Your task to perform on an android device: turn off picture-in-picture Image 0: 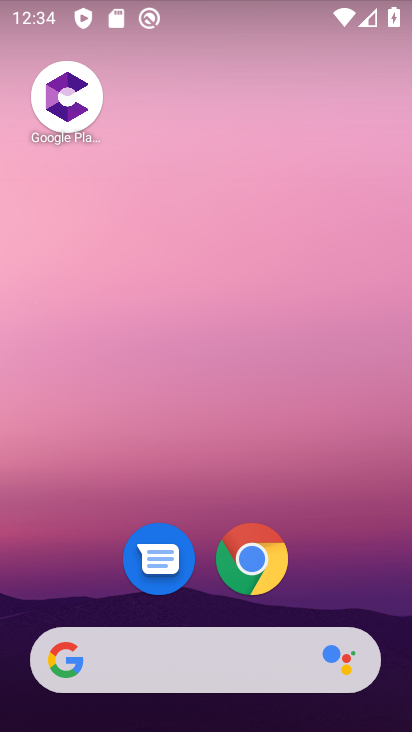
Step 0: click (263, 553)
Your task to perform on an android device: turn off picture-in-picture Image 1: 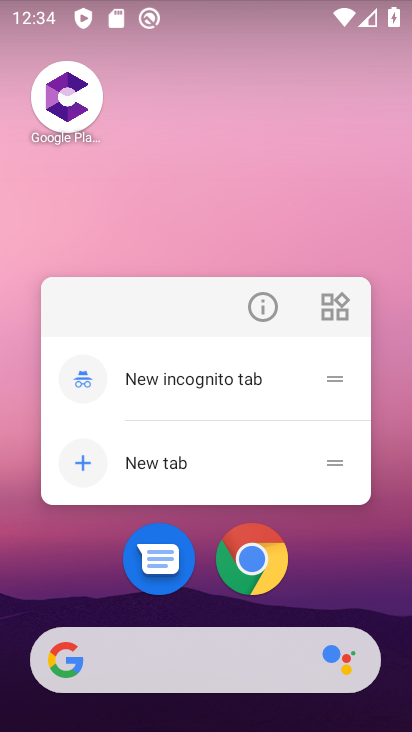
Step 1: click (250, 304)
Your task to perform on an android device: turn off picture-in-picture Image 2: 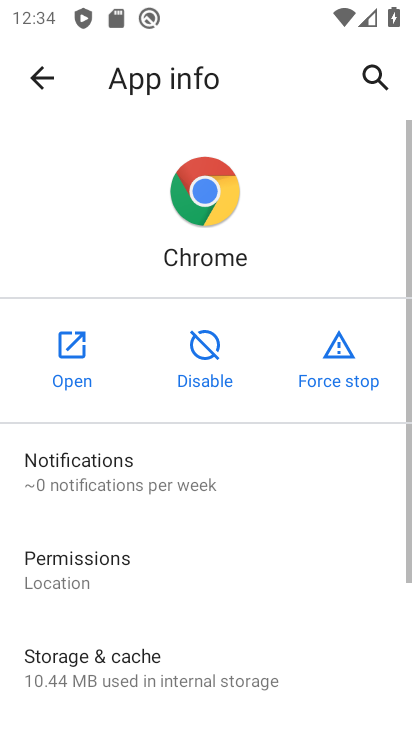
Step 2: drag from (229, 655) to (223, 267)
Your task to perform on an android device: turn off picture-in-picture Image 3: 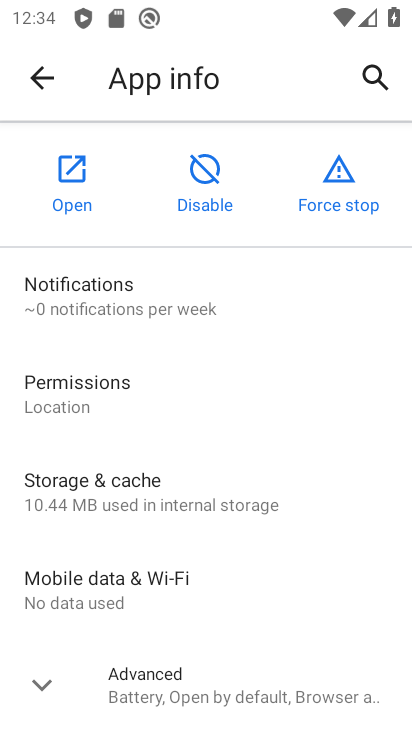
Step 3: click (48, 684)
Your task to perform on an android device: turn off picture-in-picture Image 4: 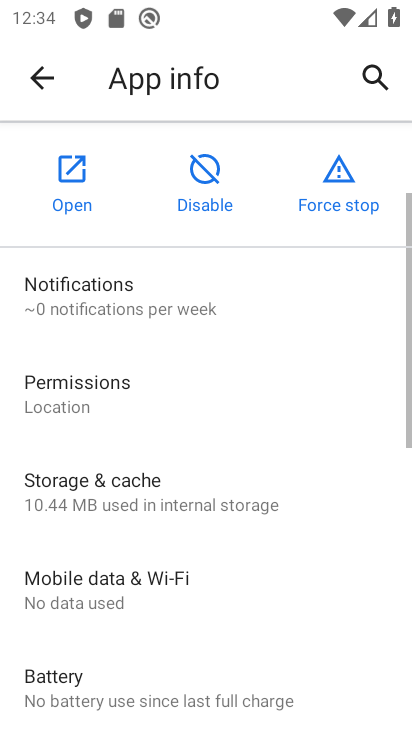
Step 4: drag from (273, 624) to (241, 281)
Your task to perform on an android device: turn off picture-in-picture Image 5: 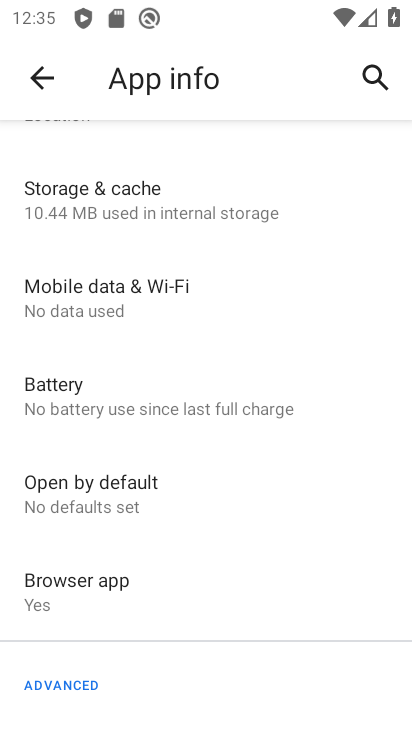
Step 5: drag from (248, 685) to (244, 361)
Your task to perform on an android device: turn off picture-in-picture Image 6: 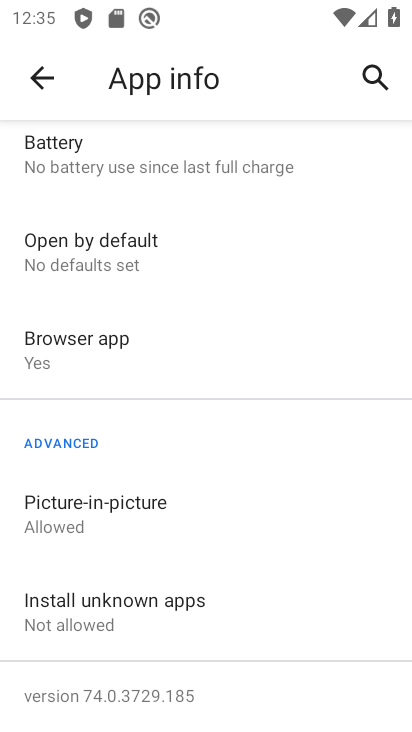
Step 6: click (66, 511)
Your task to perform on an android device: turn off picture-in-picture Image 7: 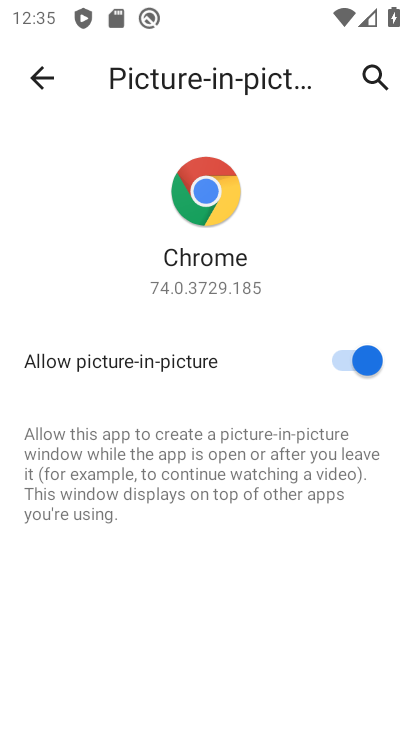
Step 7: click (340, 363)
Your task to perform on an android device: turn off picture-in-picture Image 8: 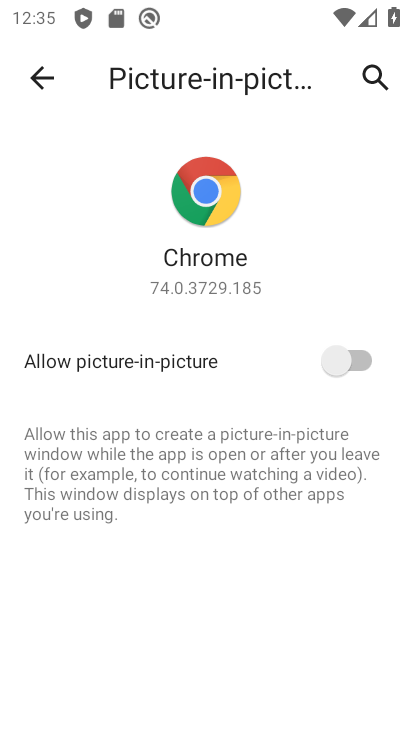
Step 8: task complete